Your task to perform on an android device: Empty the shopping cart on ebay. Search for "jbl charge 4" on ebay, select the first entry, add it to the cart, then select checkout. Image 0: 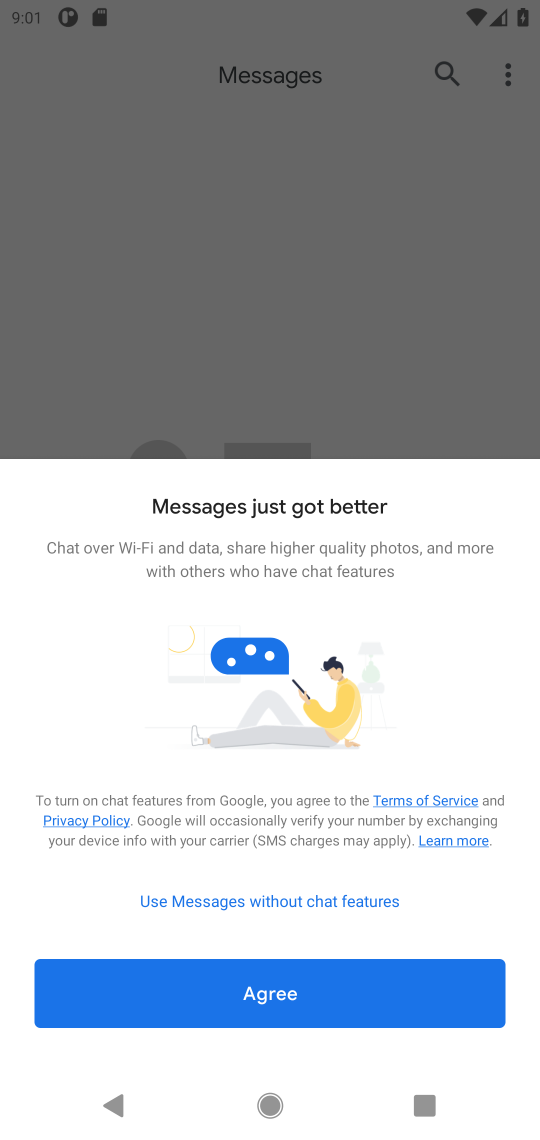
Step 0: press home button
Your task to perform on an android device: Empty the shopping cart on ebay. Search for "jbl charge 4" on ebay, select the first entry, add it to the cart, then select checkout. Image 1: 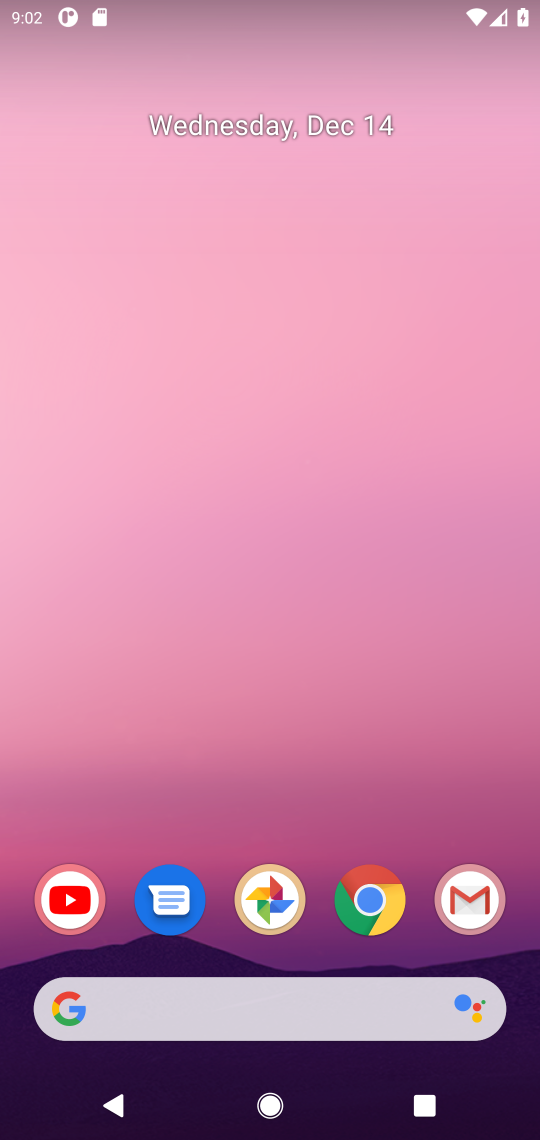
Step 1: drag from (271, 955) to (135, 34)
Your task to perform on an android device: Empty the shopping cart on ebay. Search for "jbl charge 4" on ebay, select the first entry, add it to the cart, then select checkout. Image 2: 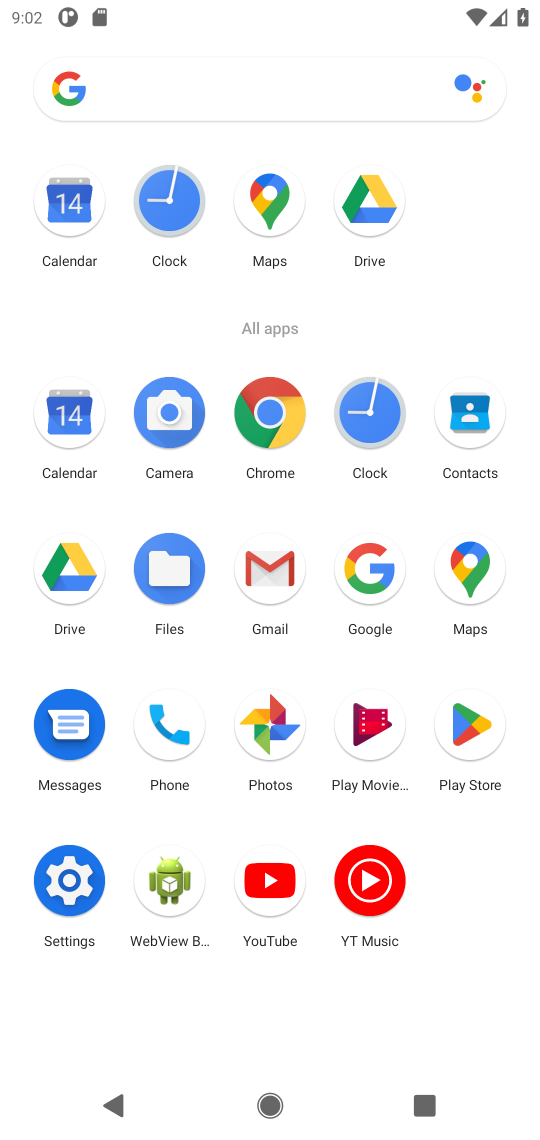
Step 2: click (341, 556)
Your task to perform on an android device: Empty the shopping cart on ebay. Search for "jbl charge 4" on ebay, select the first entry, add it to the cart, then select checkout. Image 3: 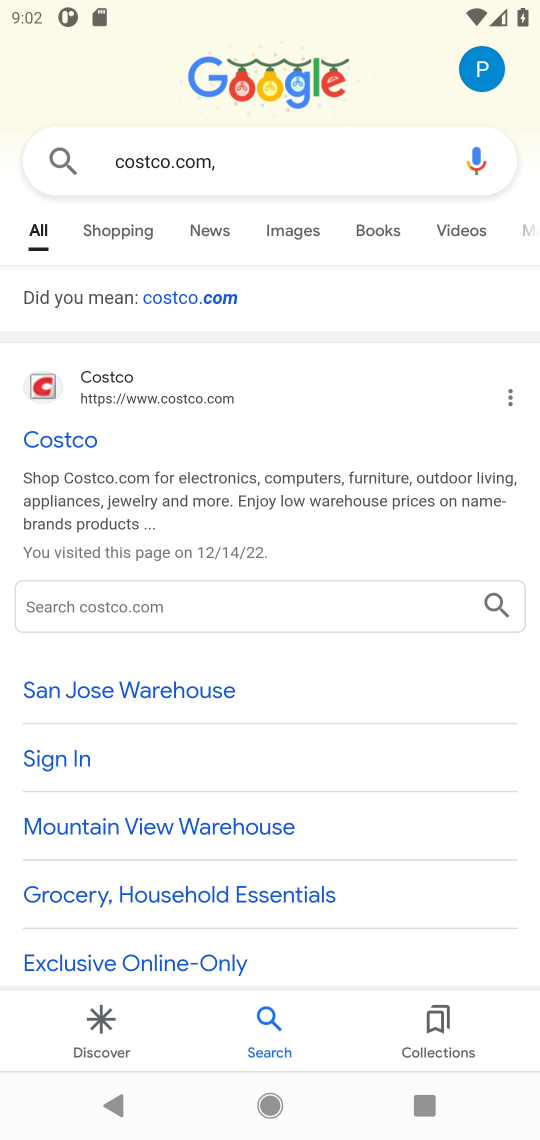
Step 3: click (261, 171)
Your task to perform on an android device: Empty the shopping cart on ebay. Search for "jbl charge 4" on ebay, select the first entry, add it to the cart, then select checkout. Image 4: 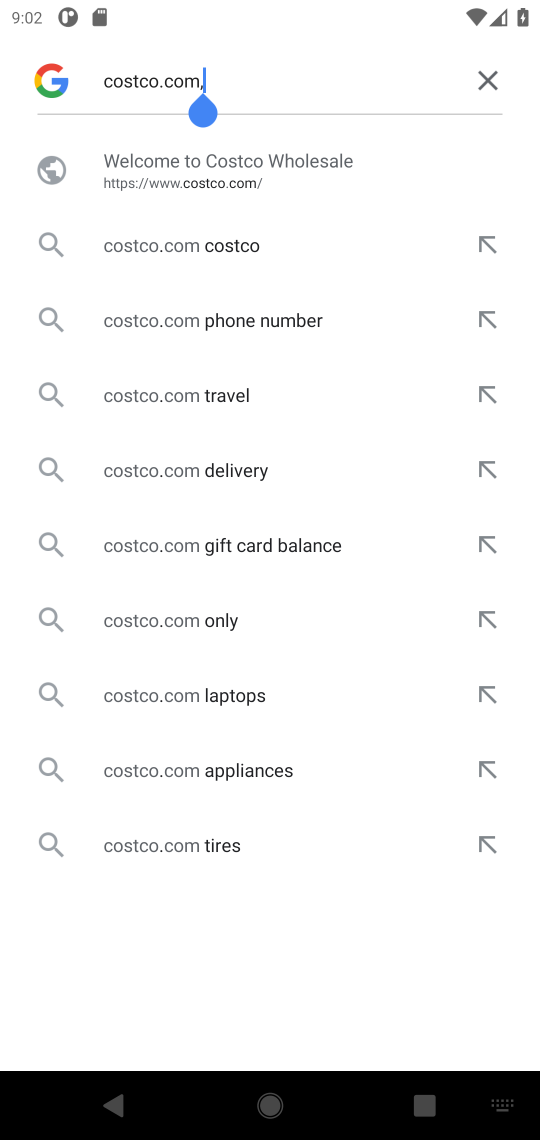
Step 4: click (474, 72)
Your task to perform on an android device: Empty the shopping cart on ebay. Search for "jbl charge 4" on ebay, select the first entry, add it to the cart, then select checkout. Image 5: 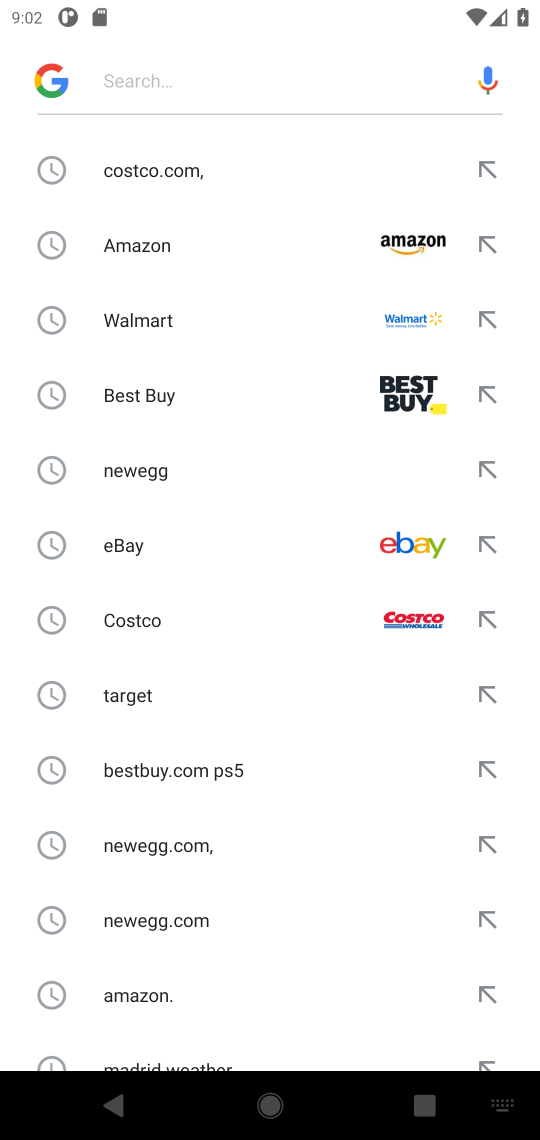
Step 5: click (110, 560)
Your task to perform on an android device: Empty the shopping cart on ebay. Search for "jbl charge 4" on ebay, select the first entry, add it to the cart, then select checkout. Image 6: 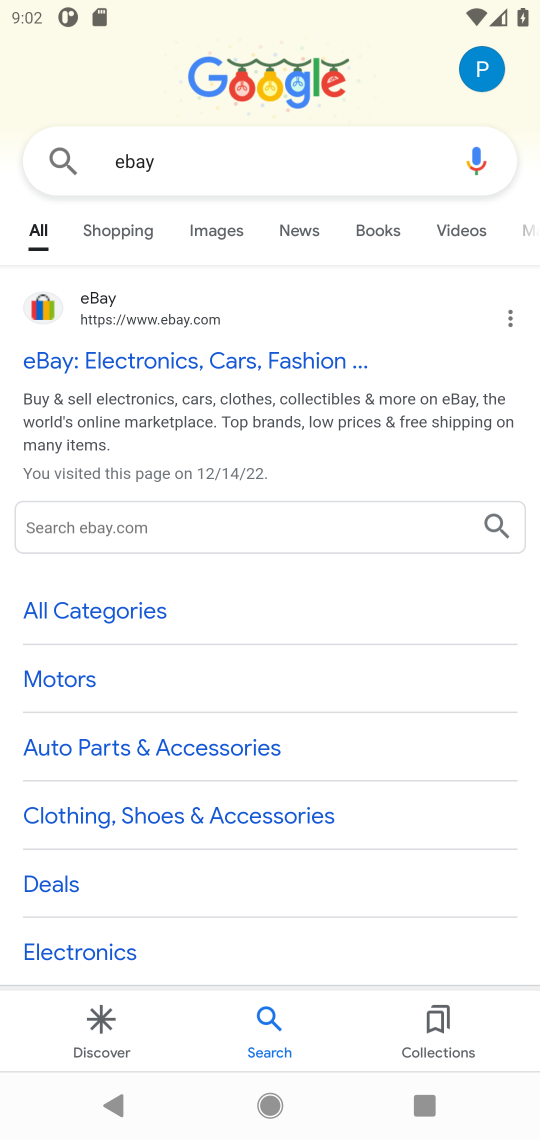
Step 6: click (93, 363)
Your task to perform on an android device: Empty the shopping cart on ebay. Search for "jbl charge 4" on ebay, select the first entry, add it to the cart, then select checkout. Image 7: 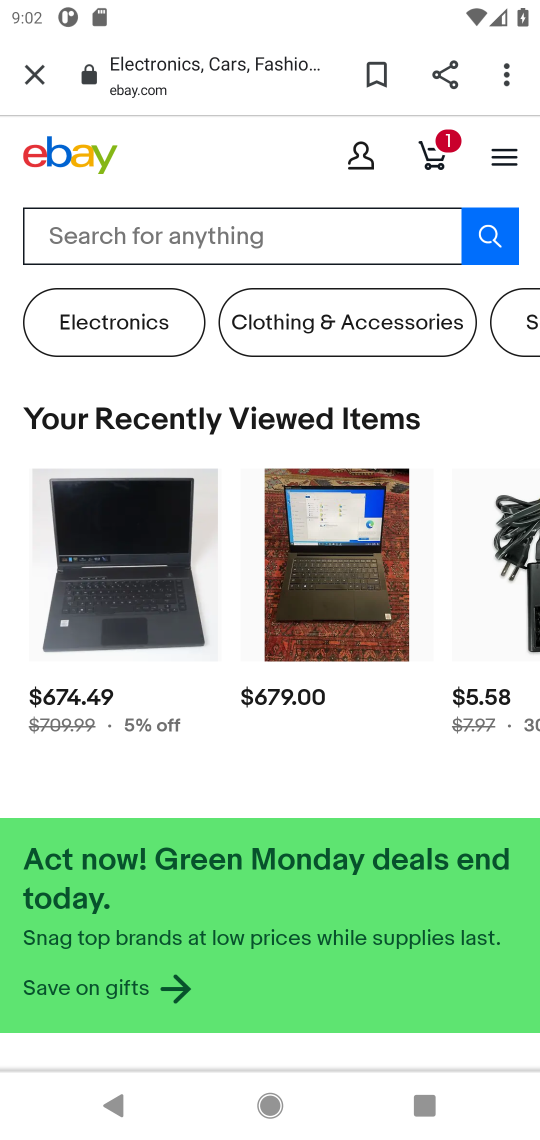
Step 7: click (224, 236)
Your task to perform on an android device: Empty the shopping cart on ebay. Search for "jbl charge 4" on ebay, select the first entry, add it to the cart, then select checkout. Image 8: 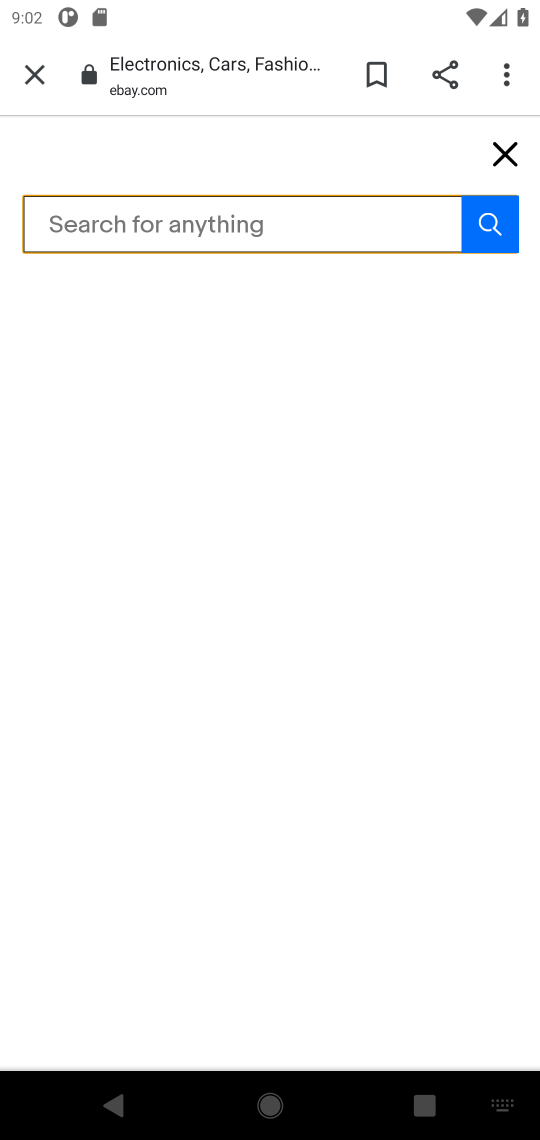
Step 8: click (504, 163)
Your task to perform on an android device: Empty the shopping cart on ebay. Search for "jbl charge 4" on ebay, select the first entry, add it to the cart, then select checkout. Image 9: 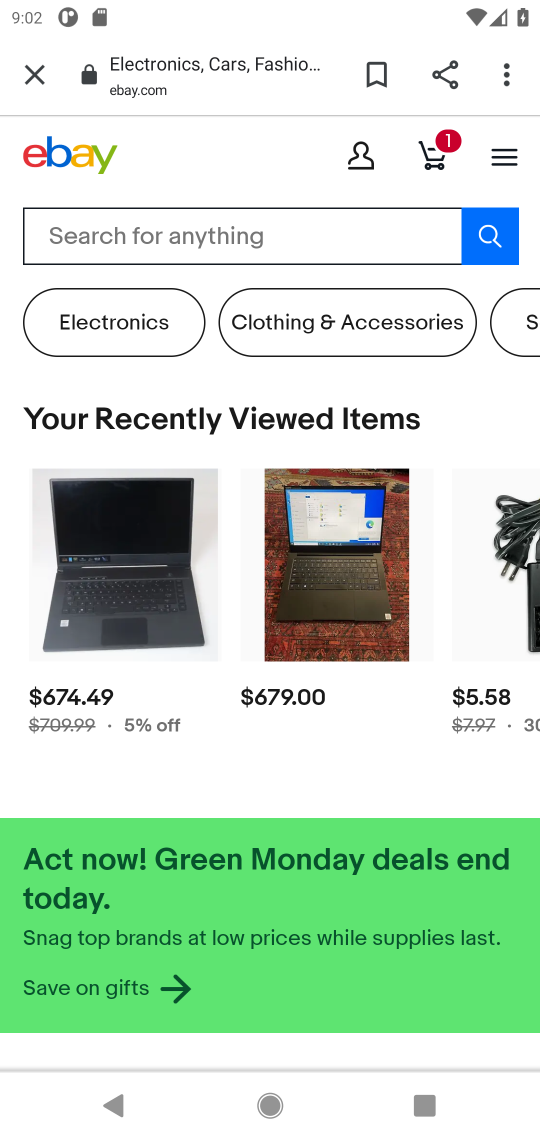
Step 9: click (437, 162)
Your task to perform on an android device: Empty the shopping cart on ebay. Search for "jbl charge 4" on ebay, select the first entry, add it to the cart, then select checkout. Image 10: 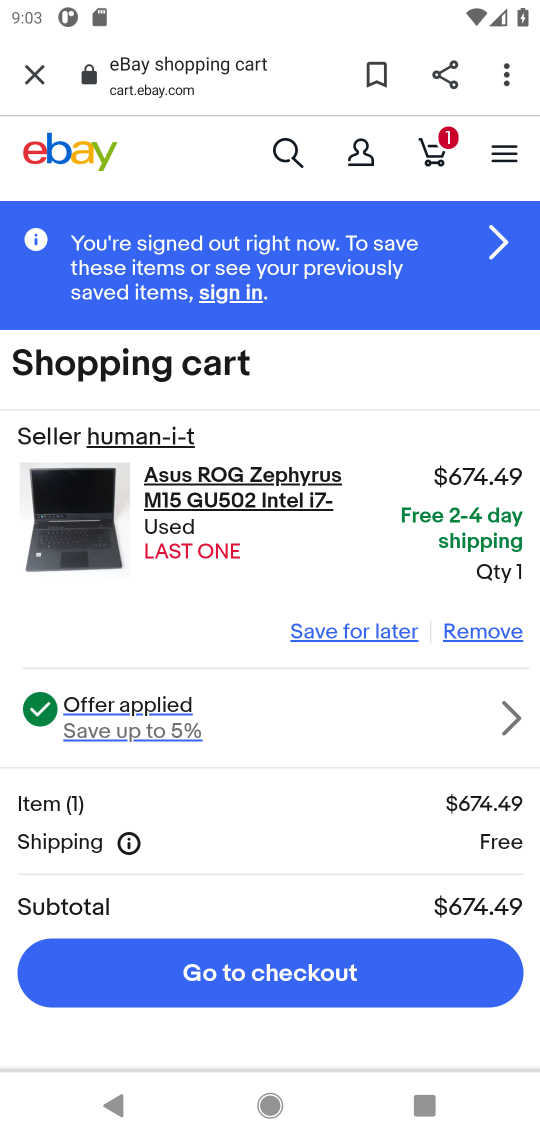
Step 10: click (457, 627)
Your task to perform on an android device: Empty the shopping cart on ebay. Search for "jbl charge 4" on ebay, select the first entry, add it to the cart, then select checkout. Image 11: 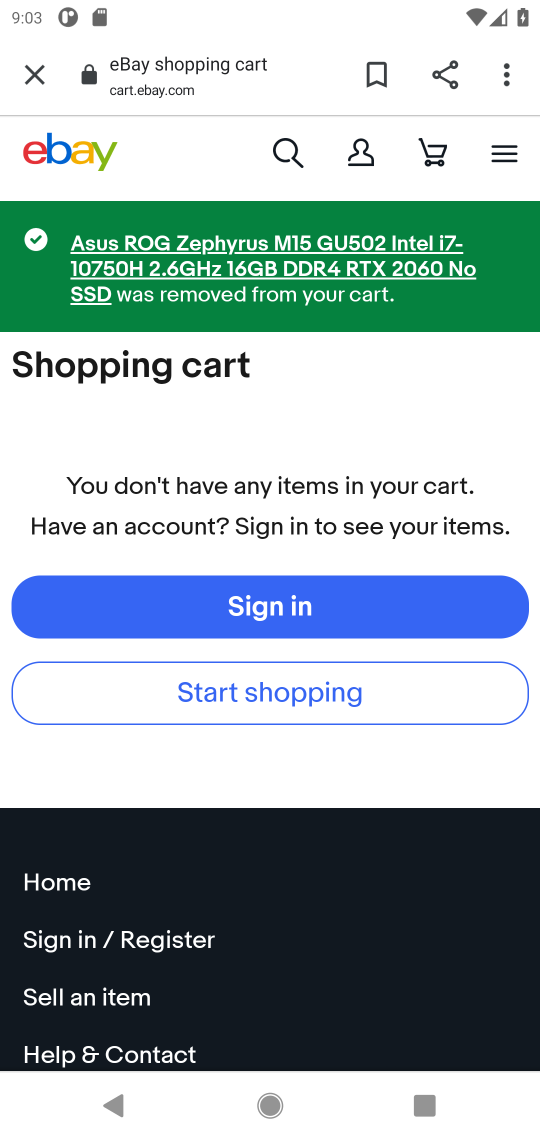
Step 11: click (272, 152)
Your task to perform on an android device: Empty the shopping cart on ebay. Search for "jbl charge 4" on ebay, select the first entry, add it to the cart, then select checkout. Image 12: 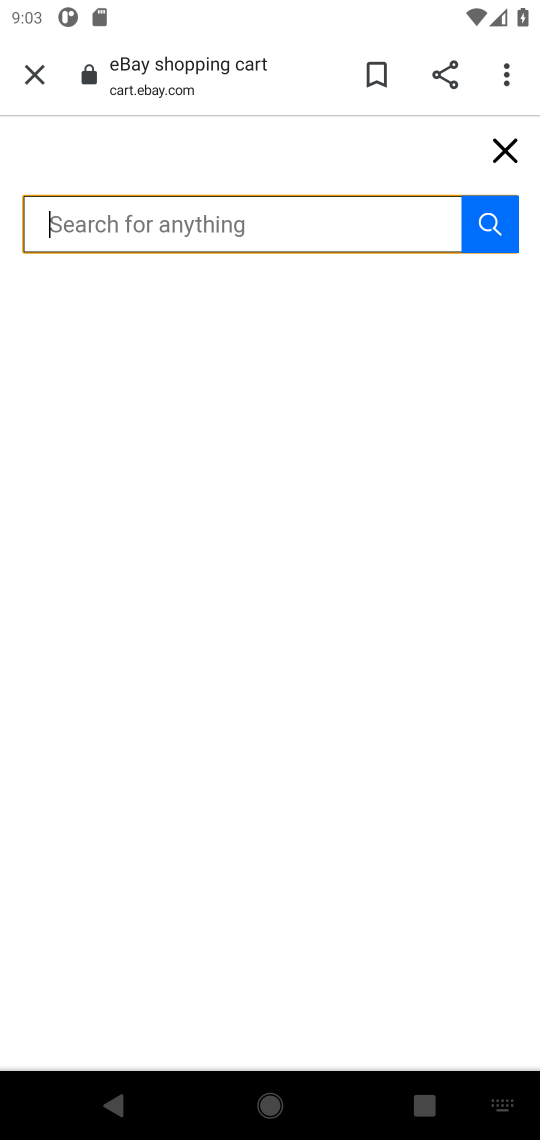
Step 12: click (227, 221)
Your task to perform on an android device: Empty the shopping cart on ebay. Search for "jbl charge 4" on ebay, select the first entry, add it to the cart, then select checkout. Image 13: 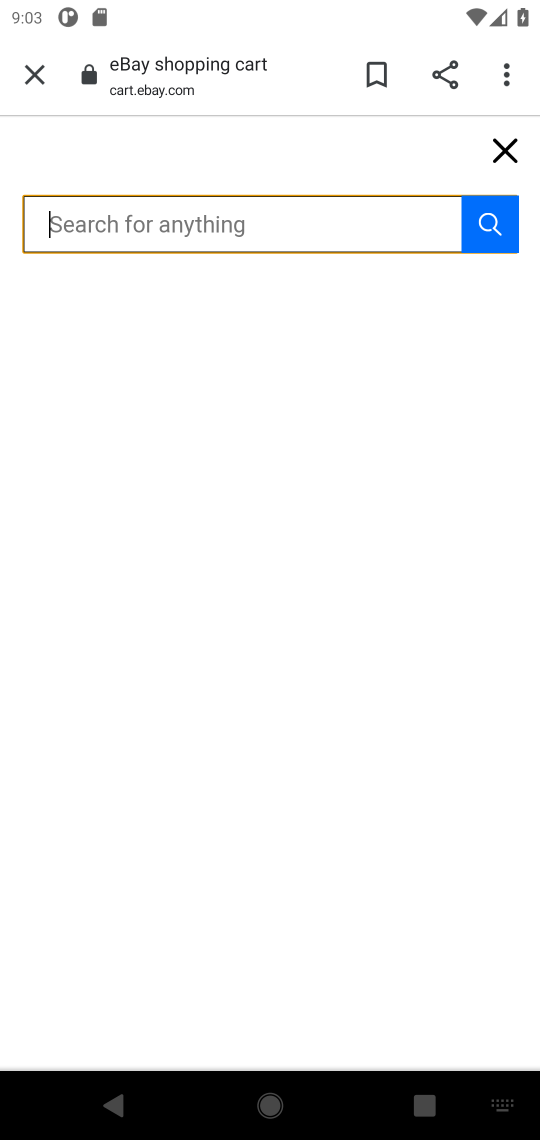
Step 13: type "jbl charge 4"
Your task to perform on an android device: Empty the shopping cart on ebay. Search for "jbl charge 4" on ebay, select the first entry, add it to the cart, then select checkout. Image 14: 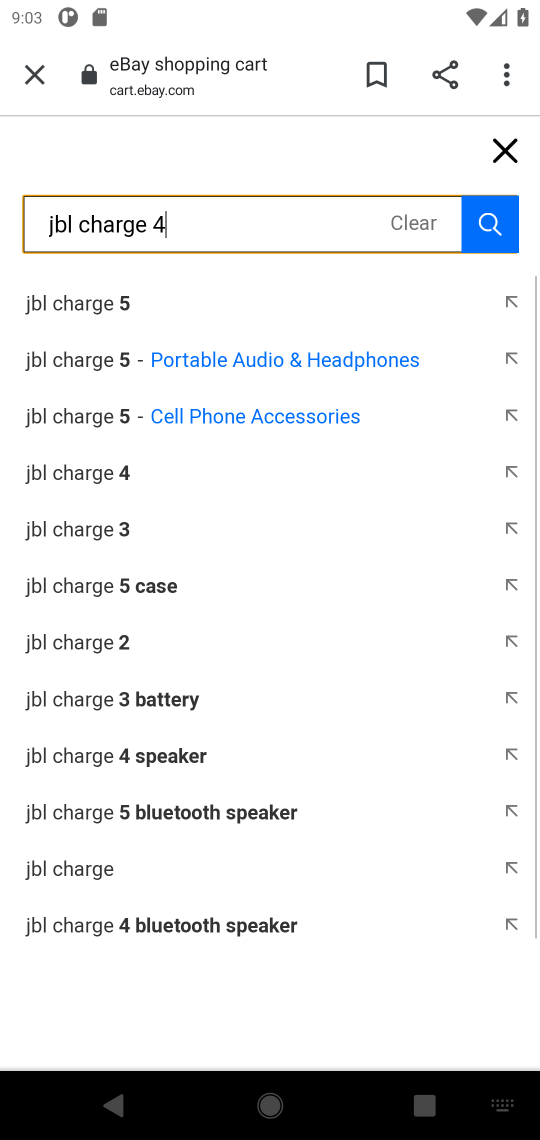
Step 14: type ""
Your task to perform on an android device: Empty the shopping cart on ebay. Search for "jbl charge 4" on ebay, select the first entry, add it to the cart, then select checkout. Image 15: 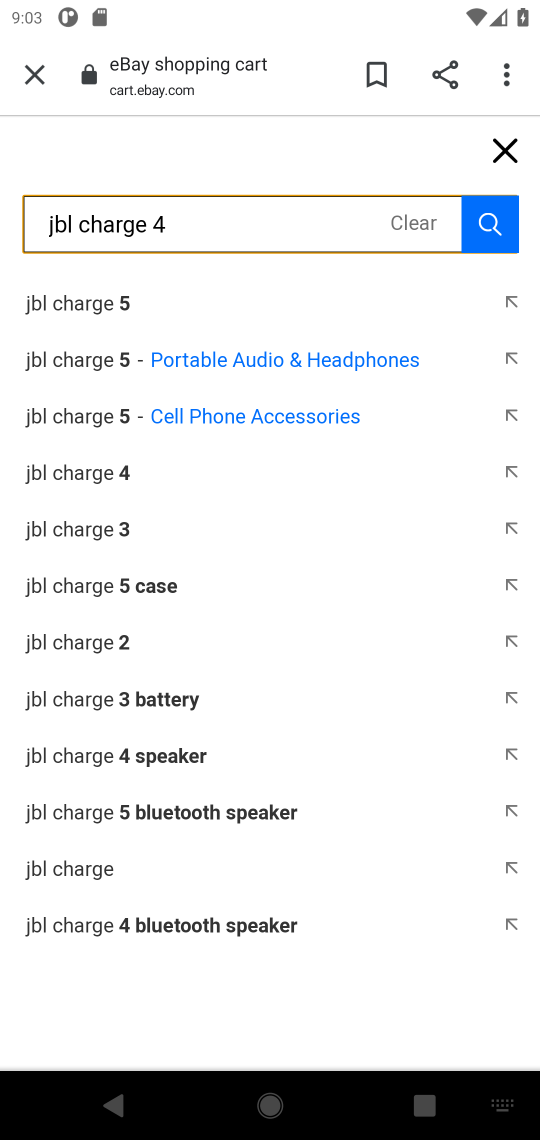
Step 15: click (463, 228)
Your task to perform on an android device: Empty the shopping cart on ebay. Search for "jbl charge 4" on ebay, select the first entry, add it to the cart, then select checkout. Image 16: 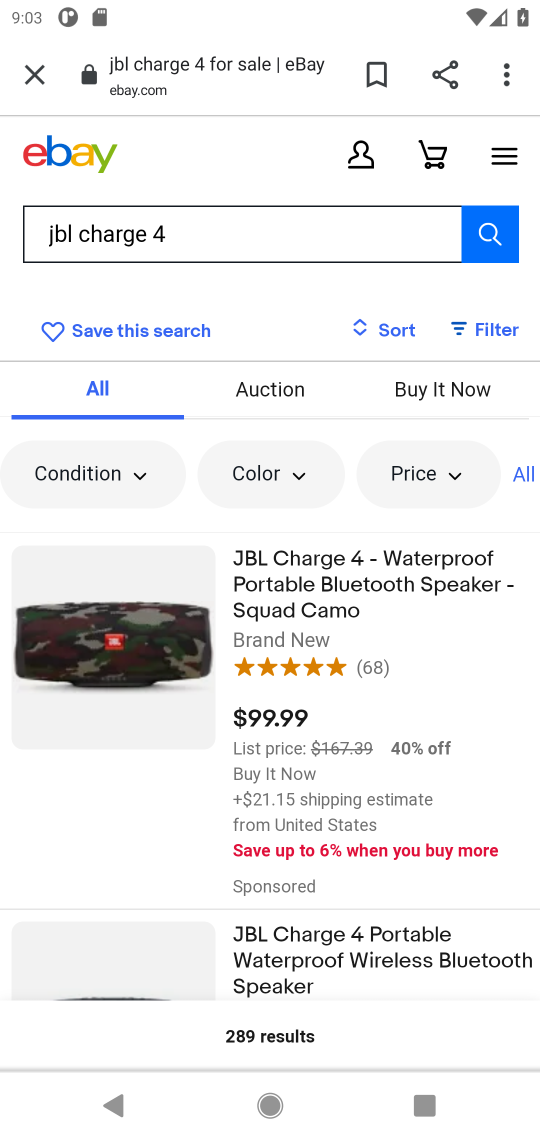
Step 16: drag from (281, 953) to (284, 656)
Your task to perform on an android device: Empty the shopping cart on ebay. Search for "jbl charge 4" on ebay, select the first entry, add it to the cart, then select checkout. Image 17: 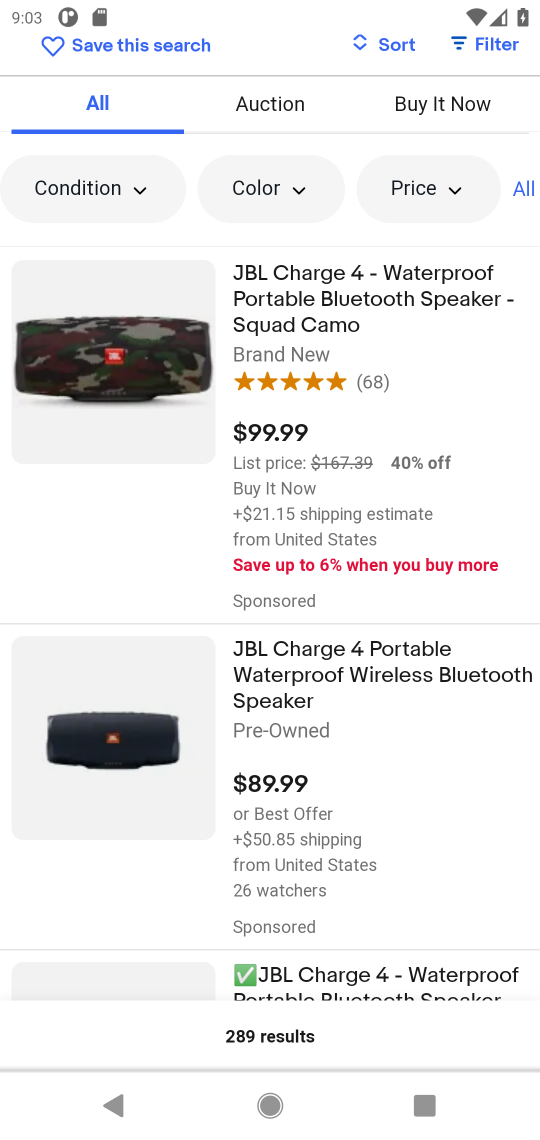
Step 17: click (279, 306)
Your task to perform on an android device: Empty the shopping cart on ebay. Search for "jbl charge 4" on ebay, select the first entry, add it to the cart, then select checkout. Image 18: 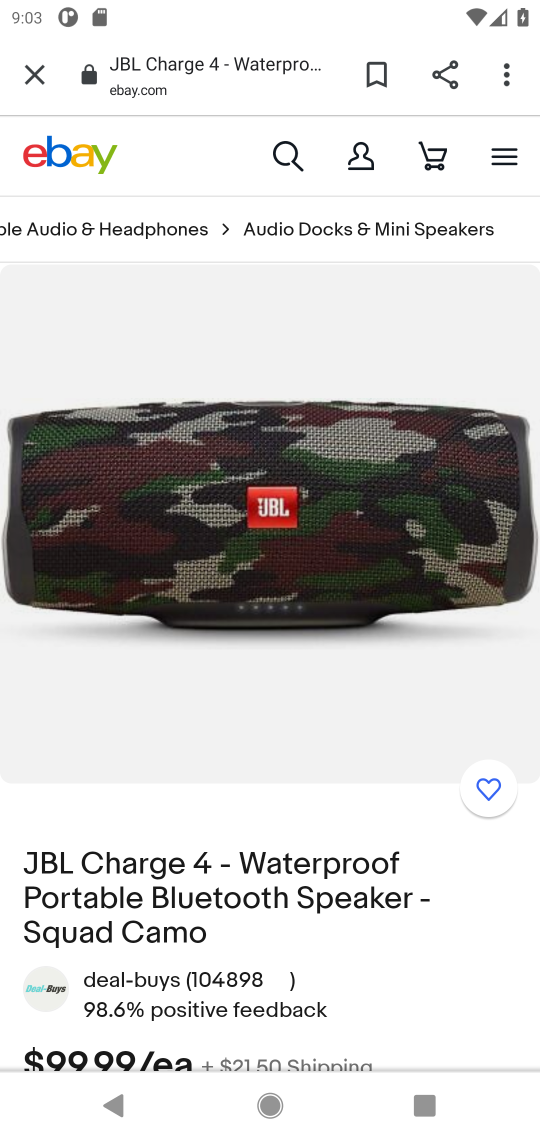
Step 18: drag from (303, 958) to (301, 411)
Your task to perform on an android device: Empty the shopping cart on ebay. Search for "jbl charge 4" on ebay, select the first entry, add it to the cart, then select checkout. Image 19: 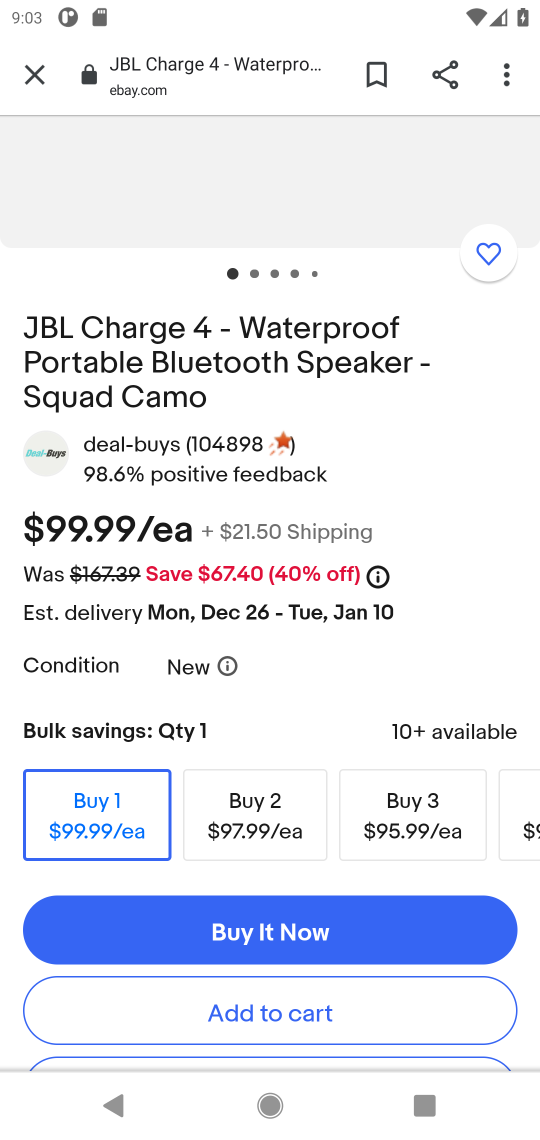
Step 19: click (267, 1011)
Your task to perform on an android device: Empty the shopping cart on ebay. Search for "jbl charge 4" on ebay, select the first entry, add it to the cart, then select checkout. Image 20: 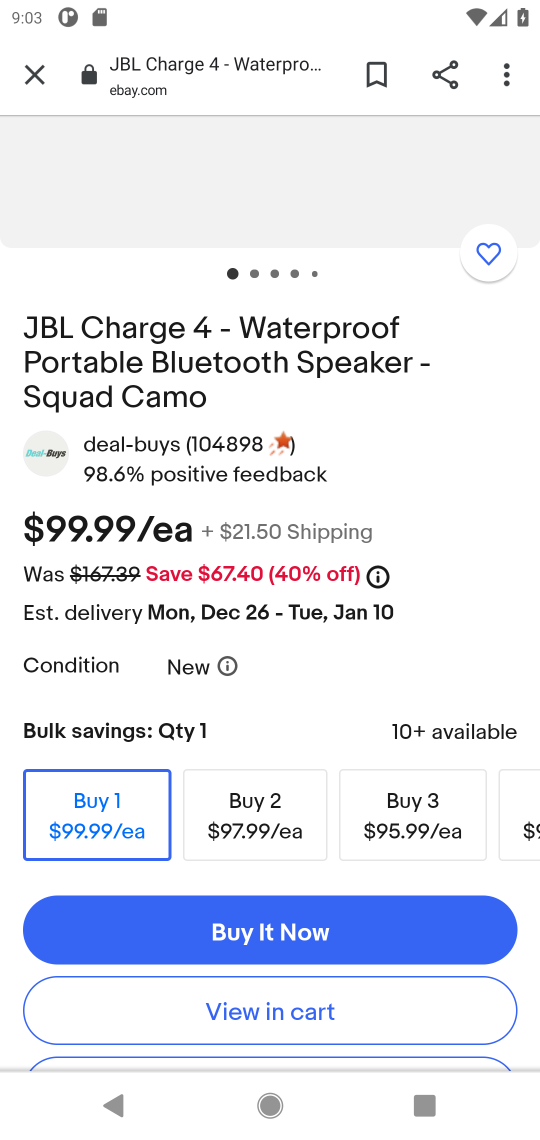
Step 20: click (267, 1011)
Your task to perform on an android device: Empty the shopping cart on ebay. Search for "jbl charge 4" on ebay, select the first entry, add it to the cart, then select checkout. Image 21: 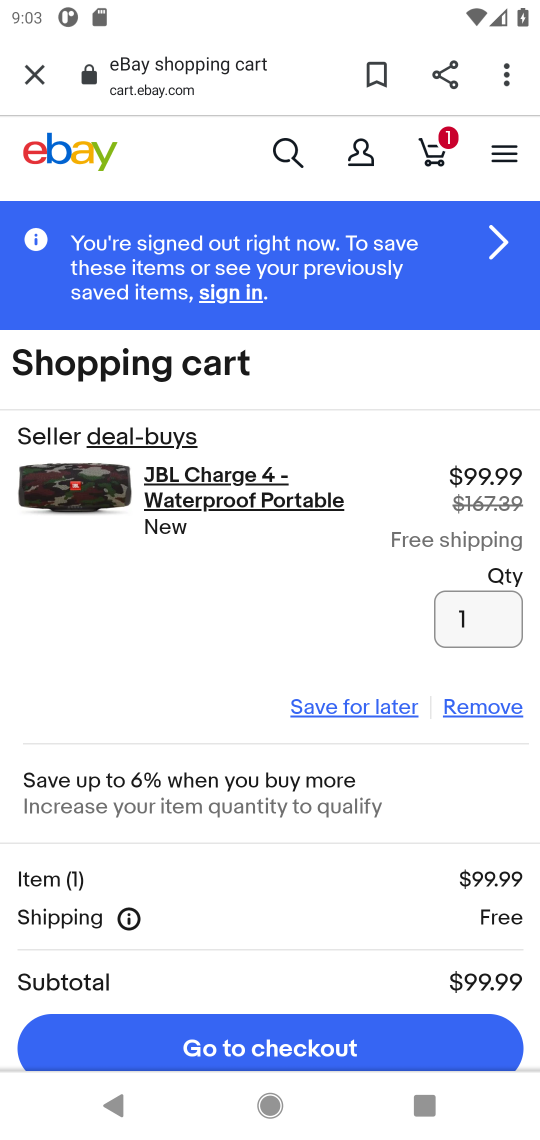
Step 21: click (265, 1051)
Your task to perform on an android device: Empty the shopping cart on ebay. Search for "jbl charge 4" on ebay, select the first entry, add it to the cart, then select checkout. Image 22: 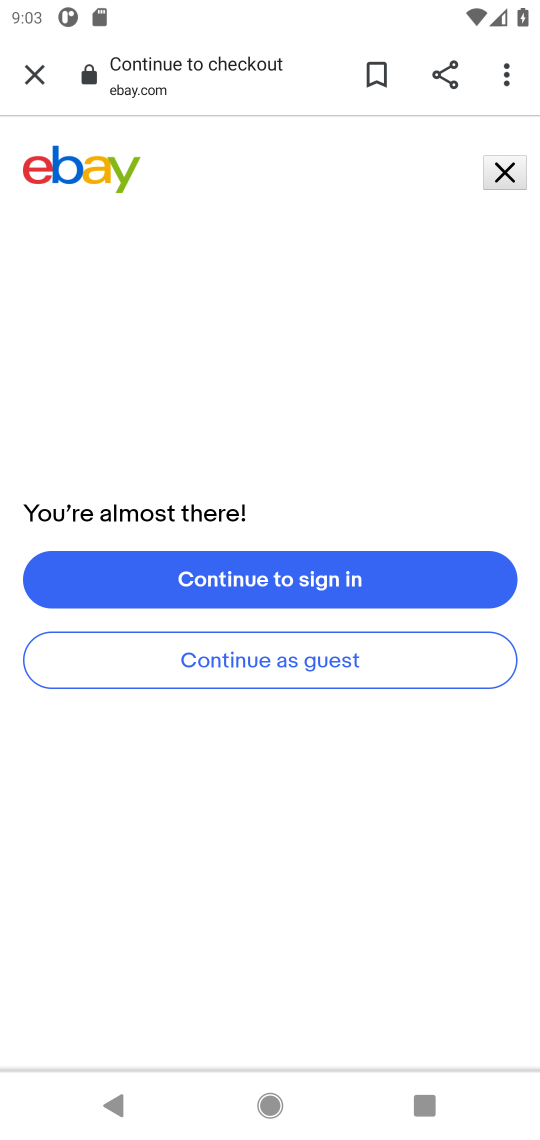
Step 22: task complete